Your task to perform on an android device: change text size in settings app Image 0: 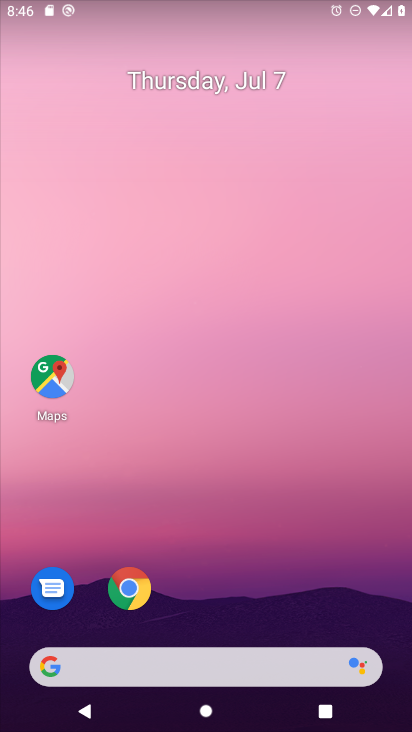
Step 0: drag from (242, 596) to (233, 271)
Your task to perform on an android device: change text size in settings app Image 1: 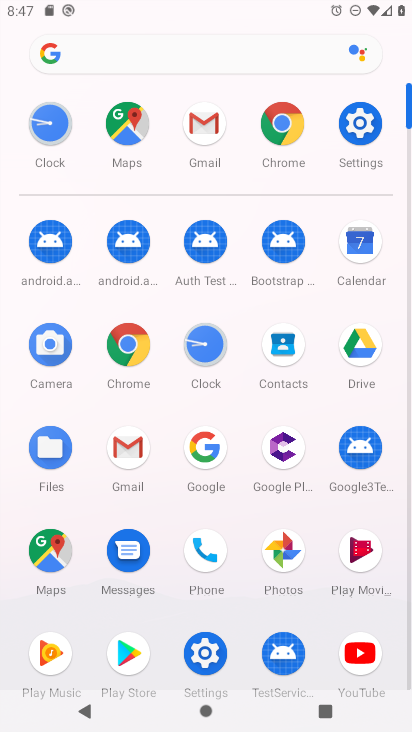
Step 1: click (354, 119)
Your task to perform on an android device: change text size in settings app Image 2: 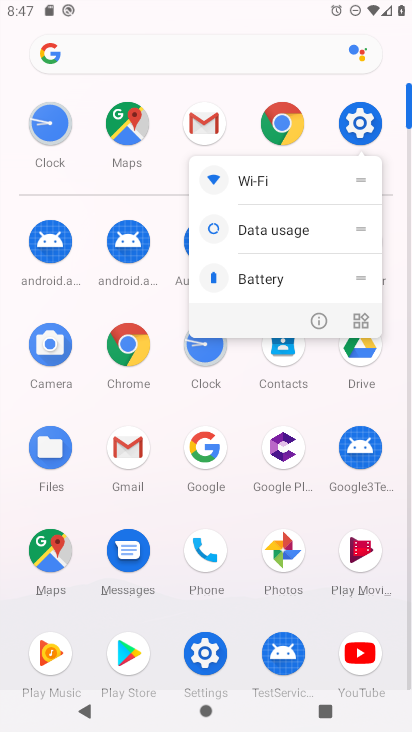
Step 2: click (354, 119)
Your task to perform on an android device: change text size in settings app Image 3: 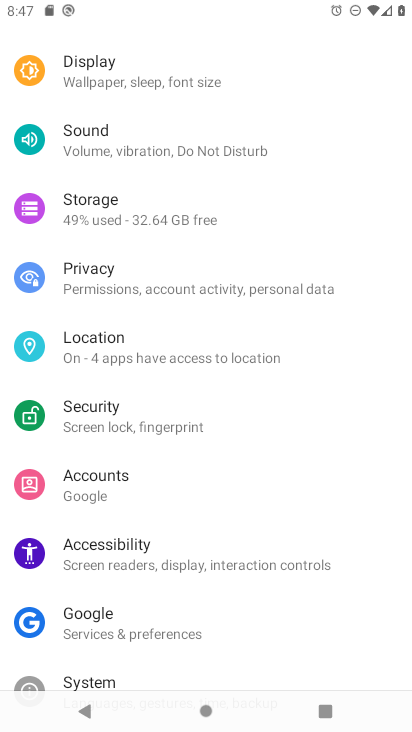
Step 3: drag from (286, 606) to (286, 185)
Your task to perform on an android device: change text size in settings app Image 4: 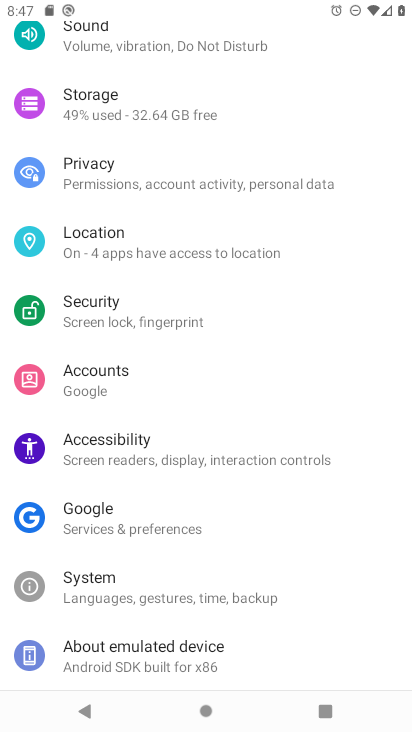
Step 4: click (165, 642)
Your task to perform on an android device: change text size in settings app Image 5: 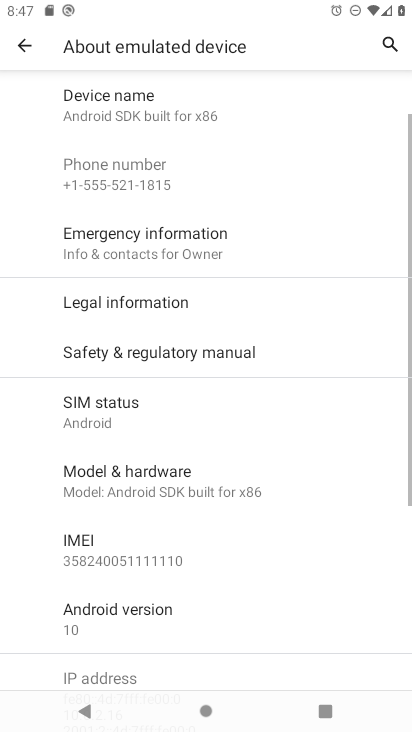
Step 5: click (24, 46)
Your task to perform on an android device: change text size in settings app Image 6: 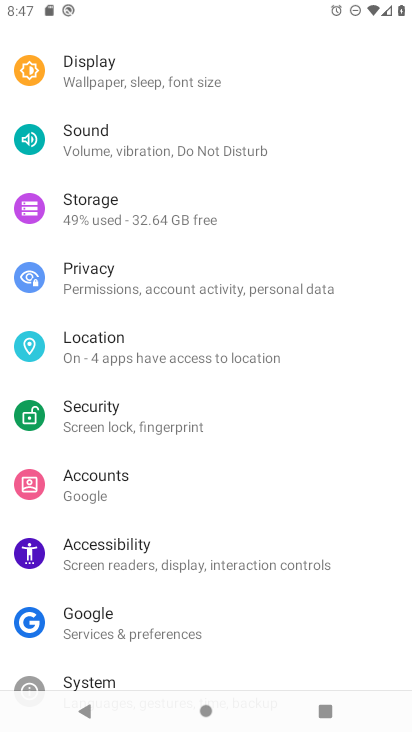
Step 6: drag from (151, 216) to (175, 251)
Your task to perform on an android device: change text size in settings app Image 7: 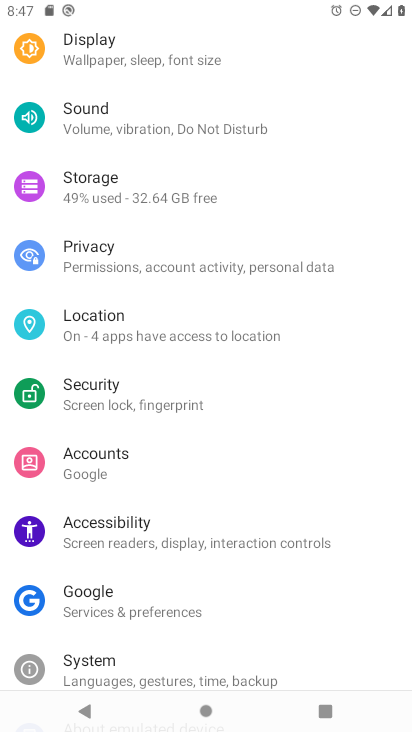
Step 7: drag from (147, 563) to (144, 306)
Your task to perform on an android device: change text size in settings app Image 8: 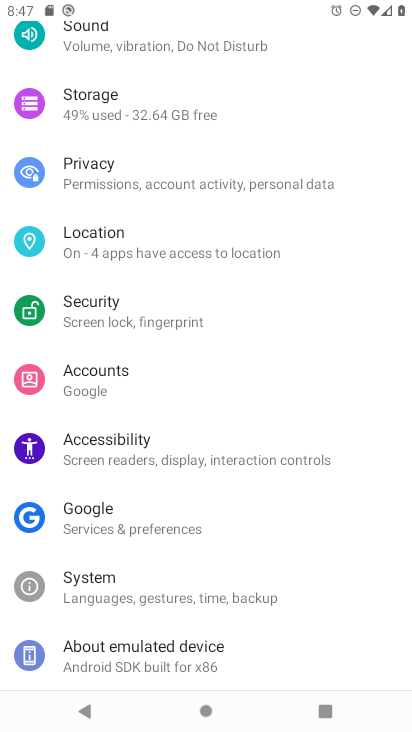
Step 8: click (114, 570)
Your task to perform on an android device: change text size in settings app Image 9: 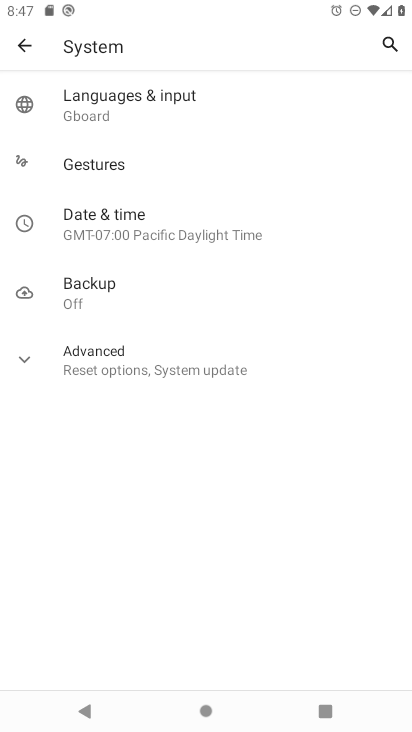
Step 9: click (19, 54)
Your task to perform on an android device: change text size in settings app Image 10: 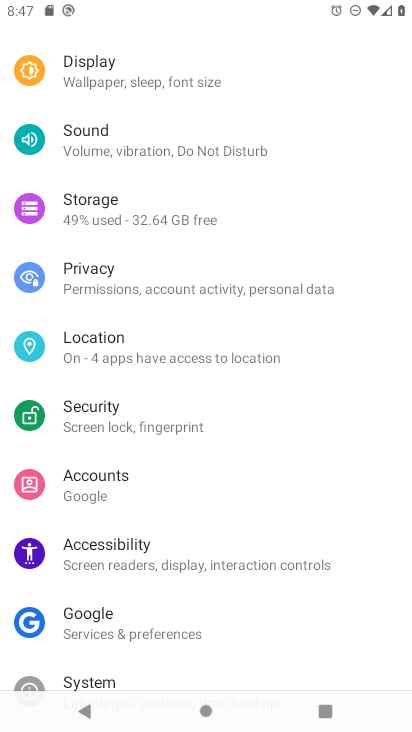
Step 10: click (146, 564)
Your task to perform on an android device: change text size in settings app Image 11: 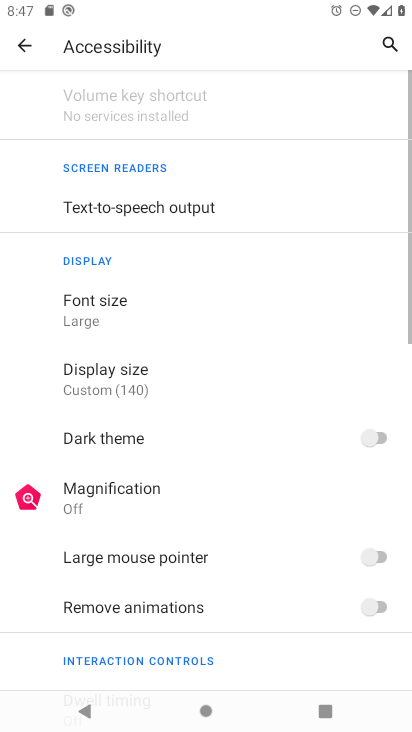
Step 11: click (148, 314)
Your task to perform on an android device: change text size in settings app Image 12: 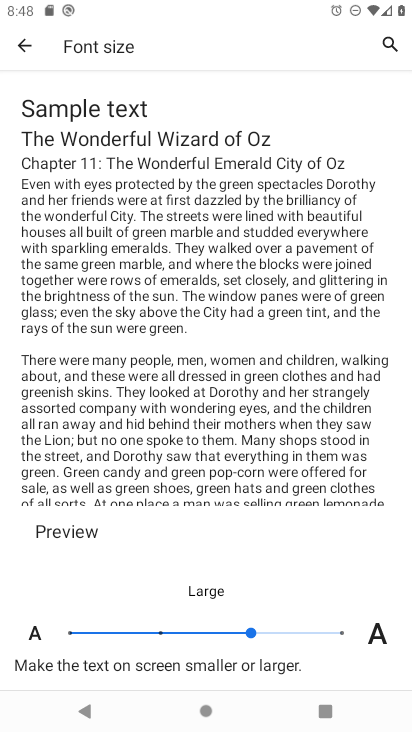
Step 12: click (157, 624)
Your task to perform on an android device: change text size in settings app Image 13: 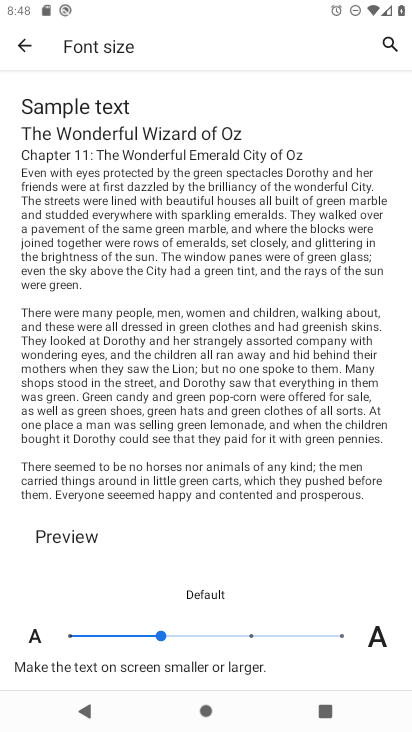
Step 13: task complete